Your task to perform on an android device: open a bookmark in the chrome app Image 0: 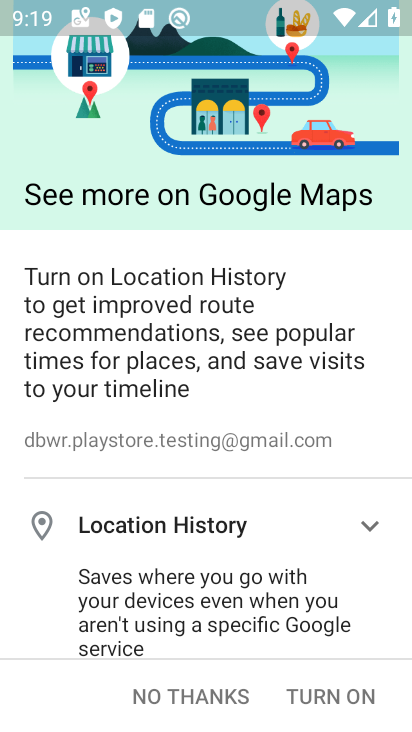
Step 0: press home button
Your task to perform on an android device: open a bookmark in the chrome app Image 1: 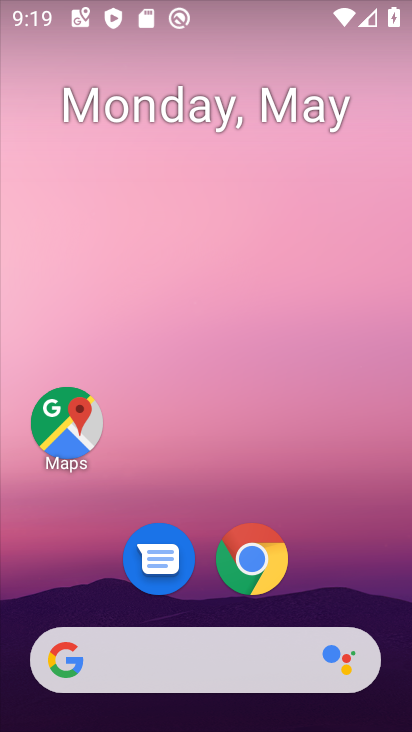
Step 1: click (249, 557)
Your task to perform on an android device: open a bookmark in the chrome app Image 2: 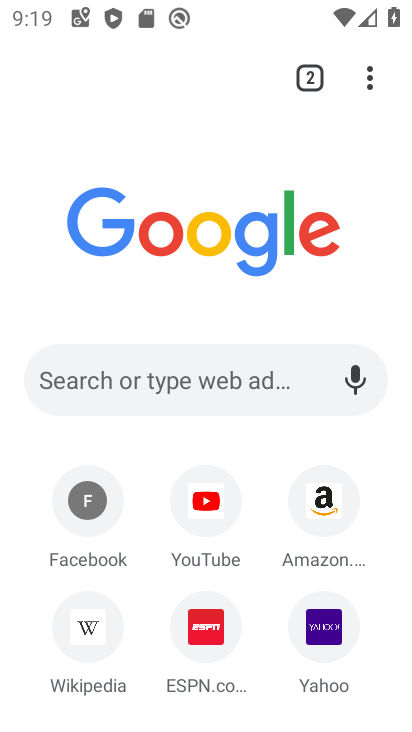
Step 2: click (373, 76)
Your task to perform on an android device: open a bookmark in the chrome app Image 3: 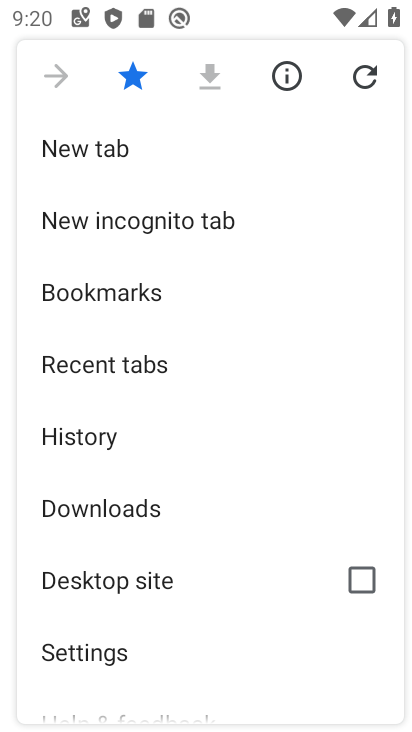
Step 3: click (136, 293)
Your task to perform on an android device: open a bookmark in the chrome app Image 4: 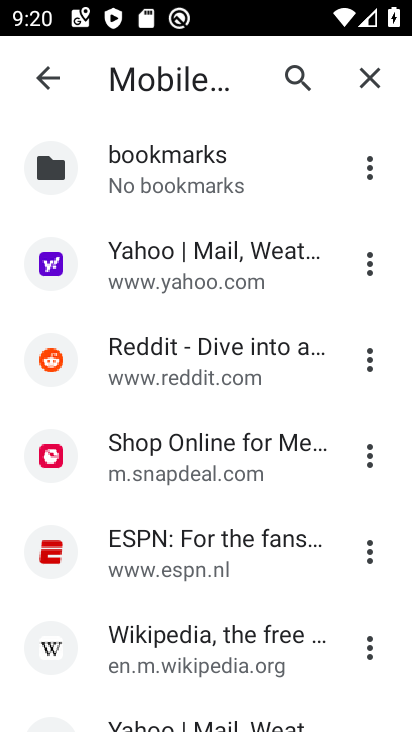
Step 4: task complete